Your task to perform on an android device: Open Google Image 0: 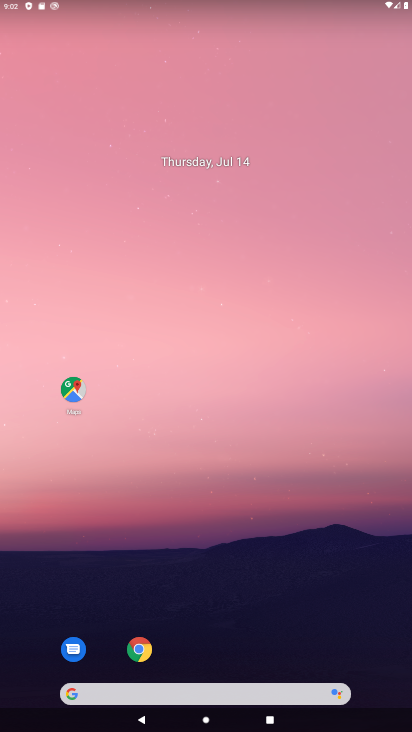
Step 0: drag from (228, 628) to (173, 98)
Your task to perform on an android device: Open Google Image 1: 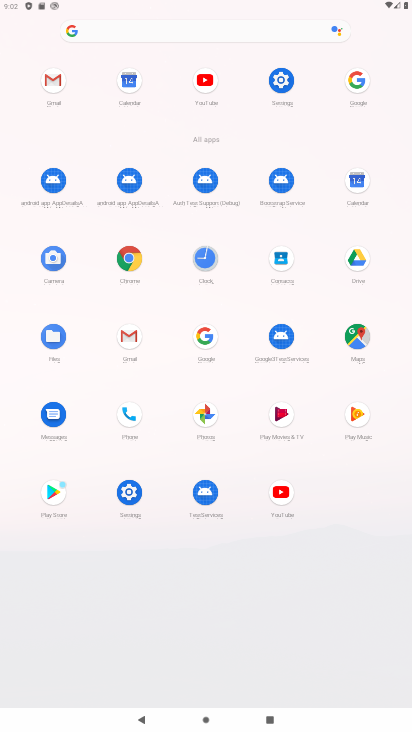
Step 1: click (207, 337)
Your task to perform on an android device: Open Google Image 2: 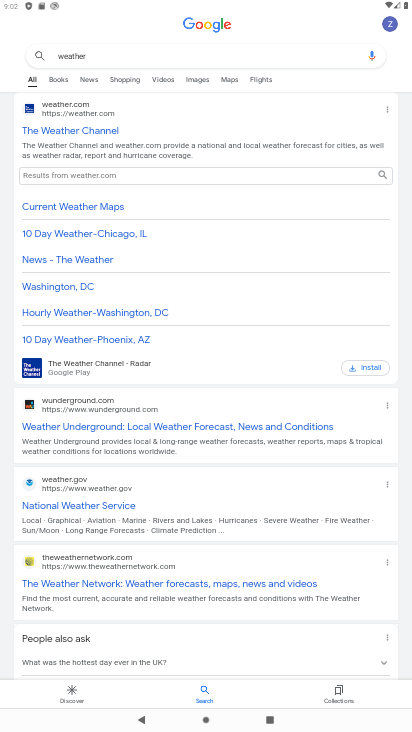
Step 2: task complete